Your task to perform on an android device: toggle airplane mode Image 0: 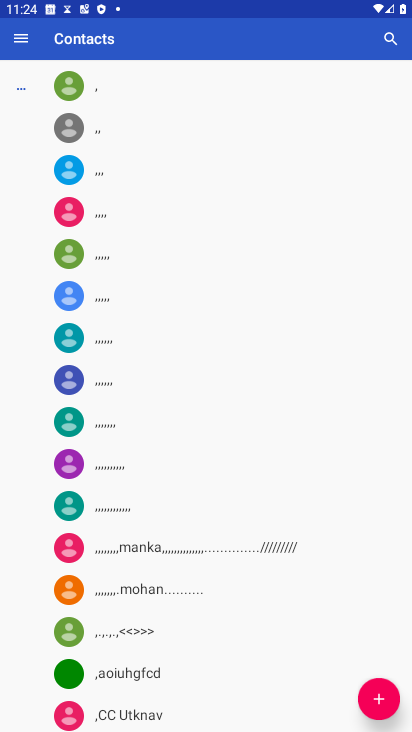
Step 0: press home button
Your task to perform on an android device: toggle airplane mode Image 1: 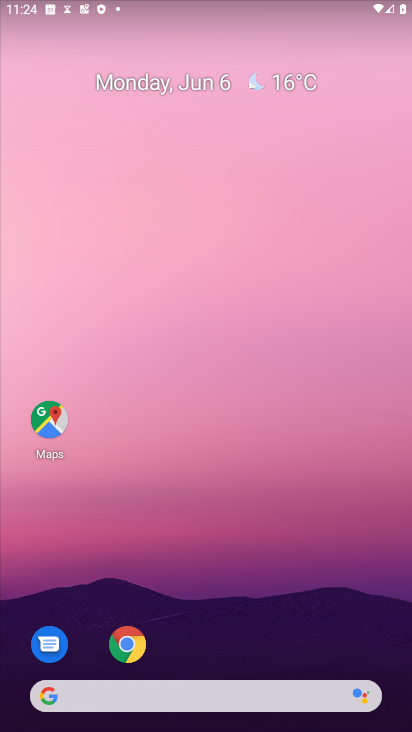
Step 1: drag from (171, 614) to (374, 125)
Your task to perform on an android device: toggle airplane mode Image 2: 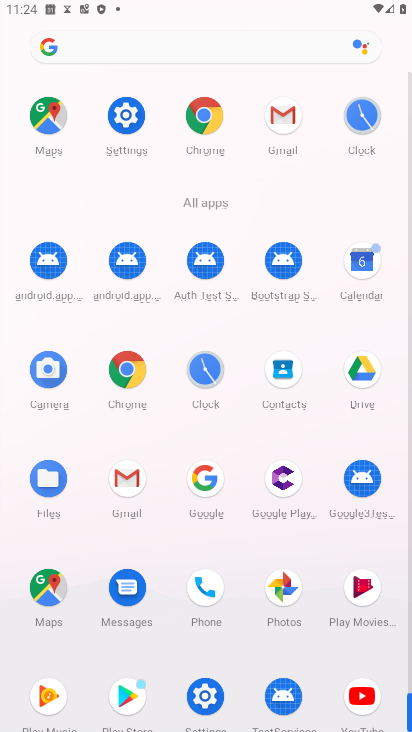
Step 2: click (210, 701)
Your task to perform on an android device: toggle airplane mode Image 3: 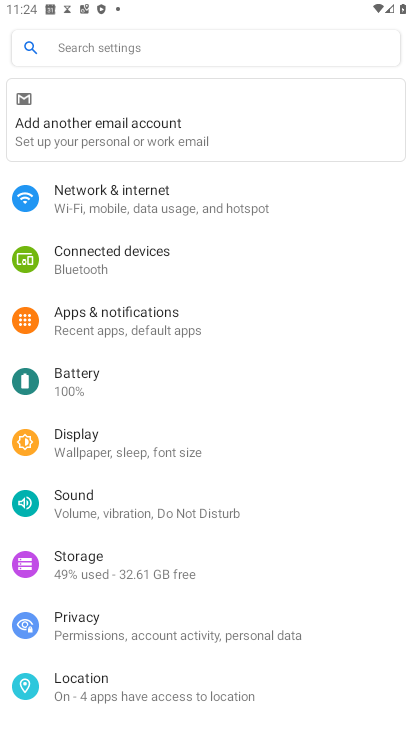
Step 3: click (178, 207)
Your task to perform on an android device: toggle airplane mode Image 4: 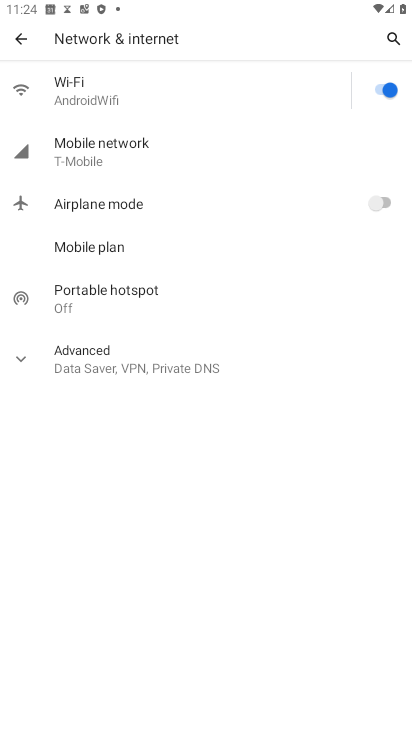
Step 4: click (362, 205)
Your task to perform on an android device: toggle airplane mode Image 5: 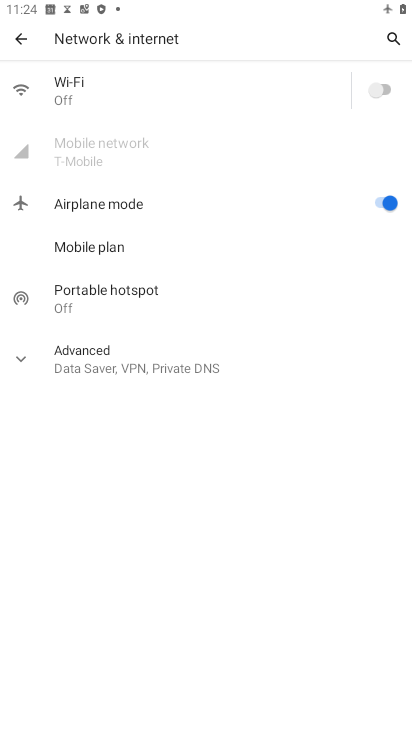
Step 5: task complete